Your task to perform on an android device: turn off javascript in the chrome app Image 0: 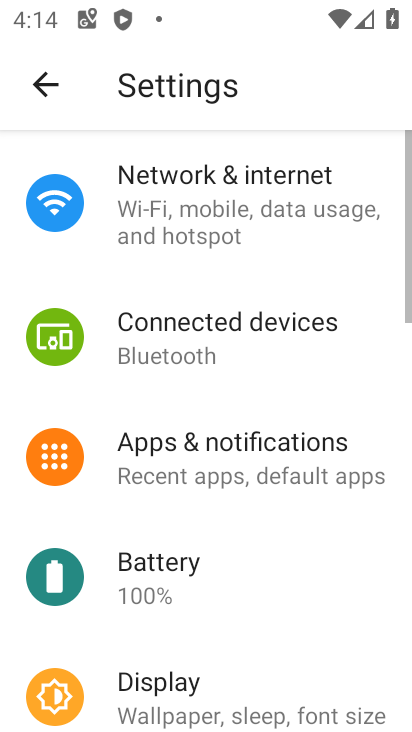
Step 0: press home button
Your task to perform on an android device: turn off javascript in the chrome app Image 1: 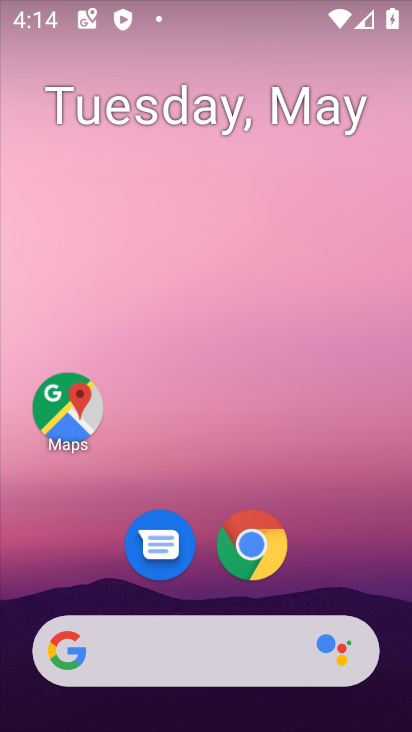
Step 1: click (249, 545)
Your task to perform on an android device: turn off javascript in the chrome app Image 2: 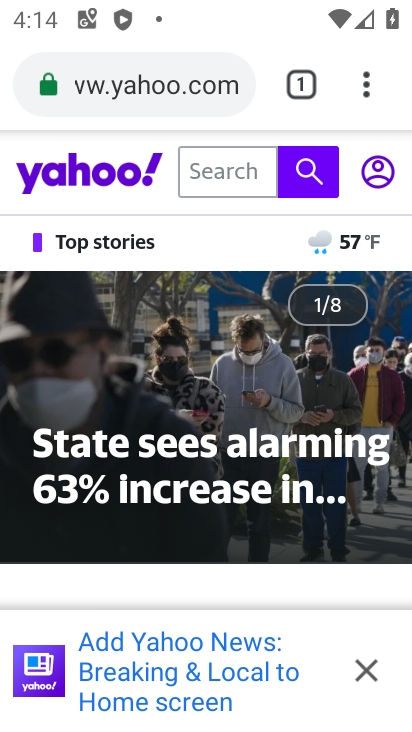
Step 2: click (367, 84)
Your task to perform on an android device: turn off javascript in the chrome app Image 3: 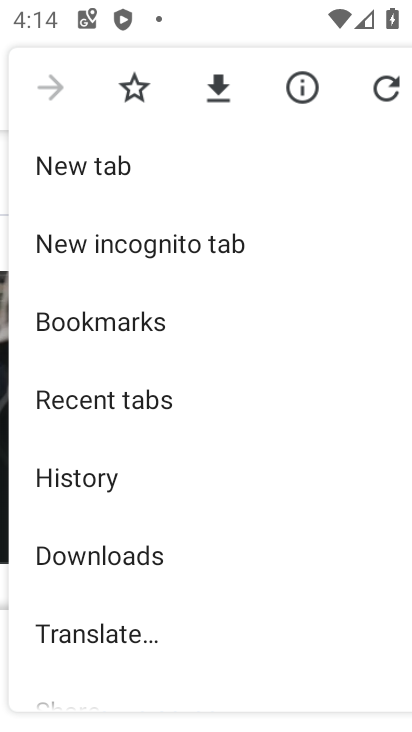
Step 3: drag from (106, 505) to (146, 395)
Your task to perform on an android device: turn off javascript in the chrome app Image 4: 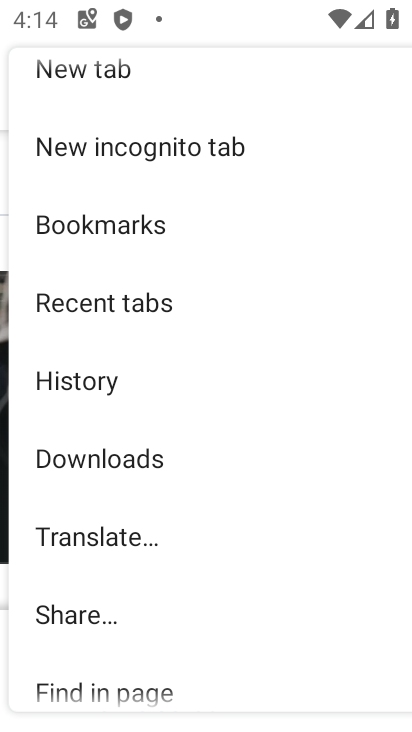
Step 4: drag from (111, 491) to (199, 377)
Your task to perform on an android device: turn off javascript in the chrome app Image 5: 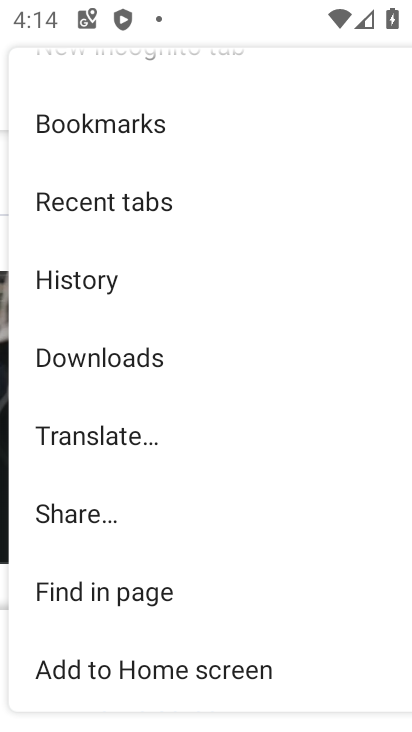
Step 5: drag from (119, 496) to (198, 398)
Your task to perform on an android device: turn off javascript in the chrome app Image 6: 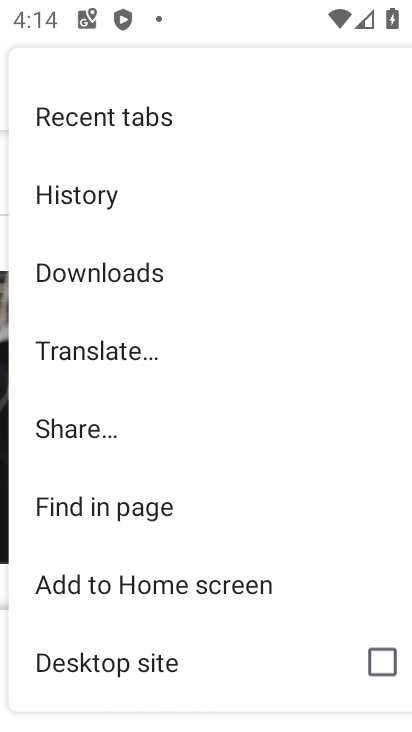
Step 6: drag from (110, 547) to (218, 403)
Your task to perform on an android device: turn off javascript in the chrome app Image 7: 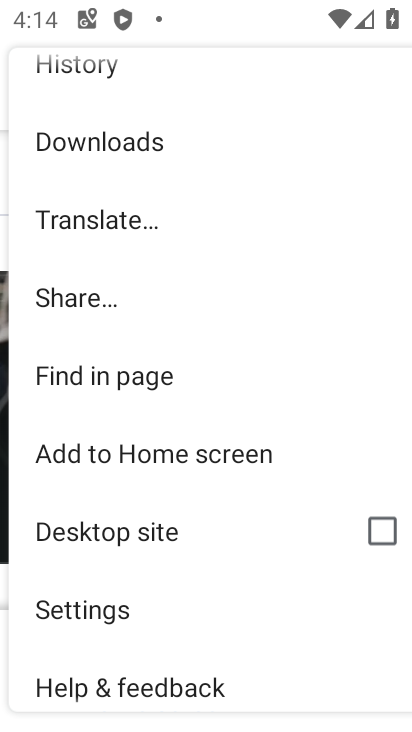
Step 7: click (99, 608)
Your task to perform on an android device: turn off javascript in the chrome app Image 8: 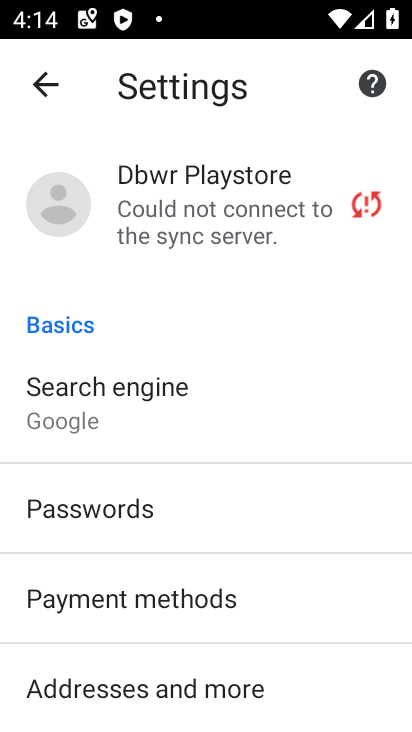
Step 8: drag from (102, 572) to (188, 428)
Your task to perform on an android device: turn off javascript in the chrome app Image 9: 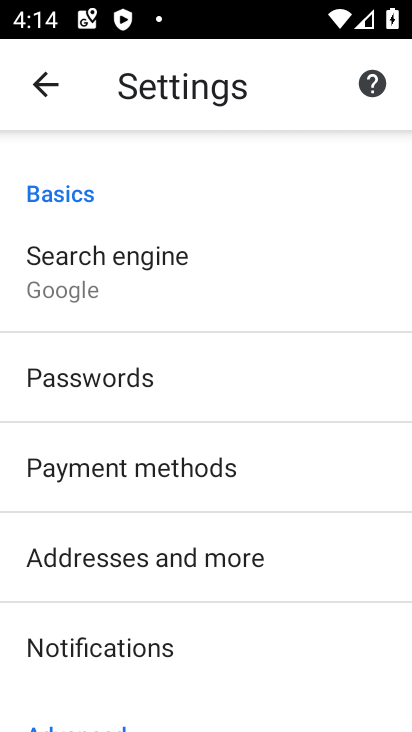
Step 9: drag from (104, 615) to (197, 456)
Your task to perform on an android device: turn off javascript in the chrome app Image 10: 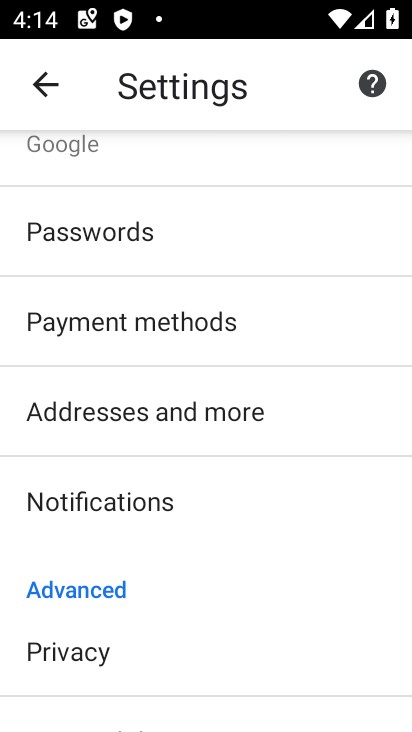
Step 10: drag from (80, 557) to (195, 406)
Your task to perform on an android device: turn off javascript in the chrome app Image 11: 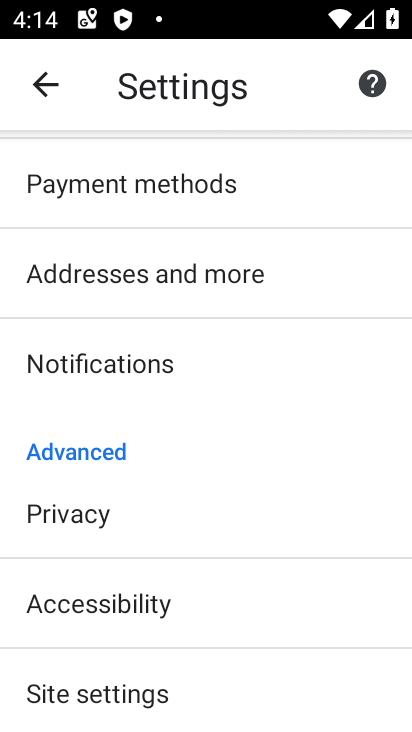
Step 11: drag from (74, 578) to (198, 436)
Your task to perform on an android device: turn off javascript in the chrome app Image 12: 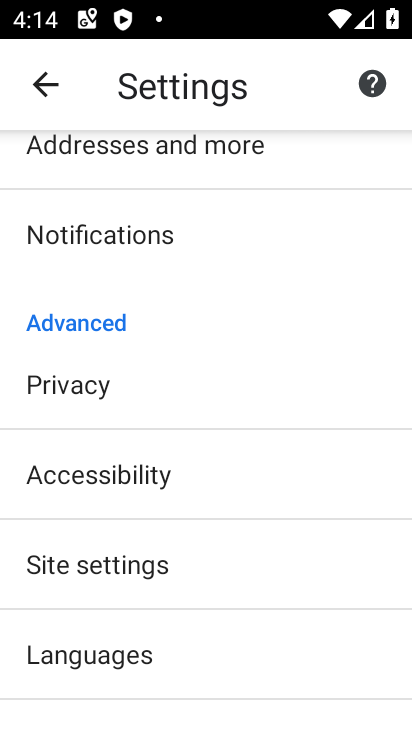
Step 12: click (101, 568)
Your task to perform on an android device: turn off javascript in the chrome app Image 13: 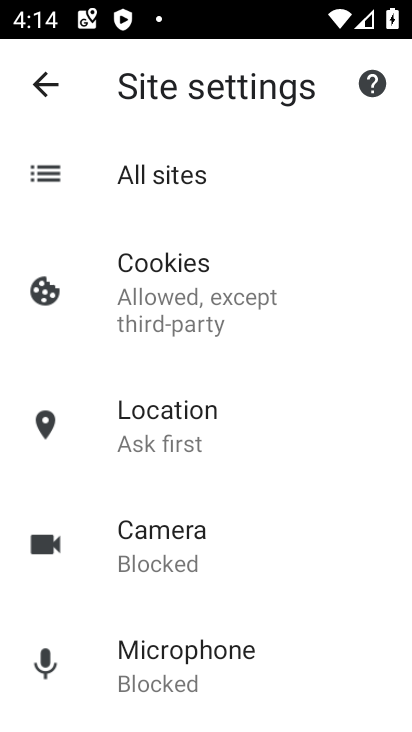
Step 13: drag from (179, 593) to (229, 444)
Your task to perform on an android device: turn off javascript in the chrome app Image 14: 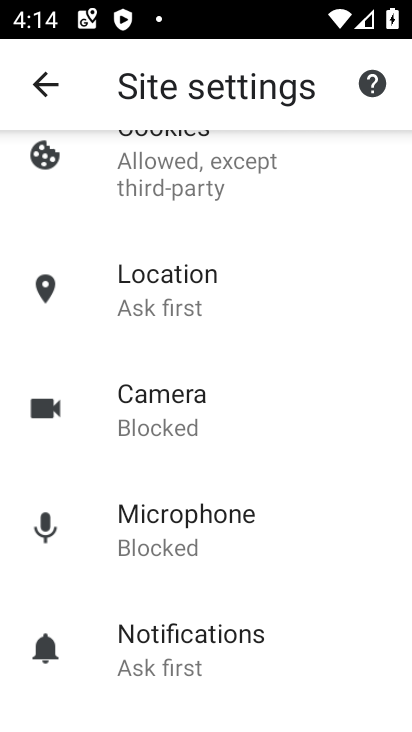
Step 14: drag from (175, 601) to (256, 466)
Your task to perform on an android device: turn off javascript in the chrome app Image 15: 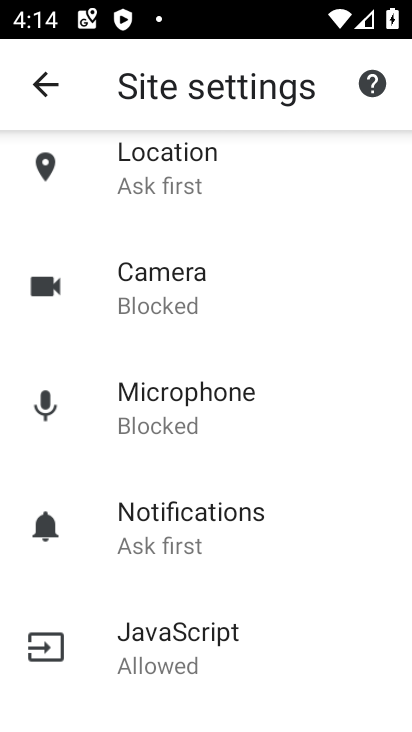
Step 15: drag from (195, 591) to (274, 474)
Your task to perform on an android device: turn off javascript in the chrome app Image 16: 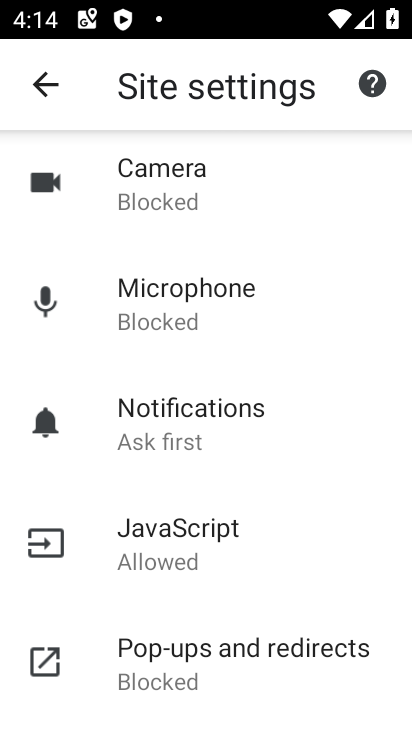
Step 16: click (193, 544)
Your task to perform on an android device: turn off javascript in the chrome app Image 17: 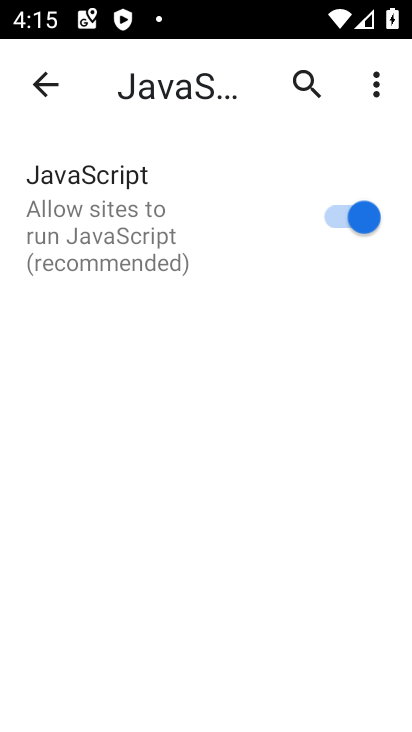
Step 17: click (336, 223)
Your task to perform on an android device: turn off javascript in the chrome app Image 18: 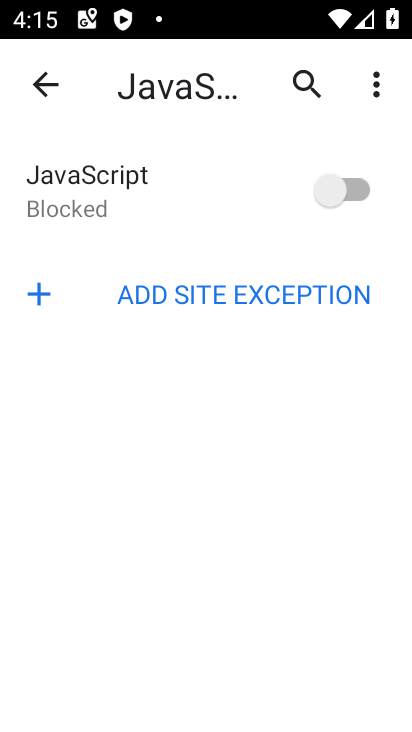
Step 18: task complete